Your task to perform on an android device: Search for pizza restaurants on Maps Image 0: 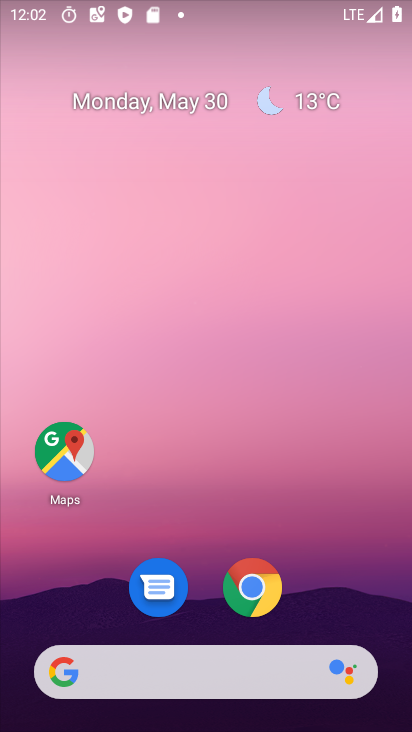
Step 0: click (69, 437)
Your task to perform on an android device: Search for pizza restaurants on Maps Image 1: 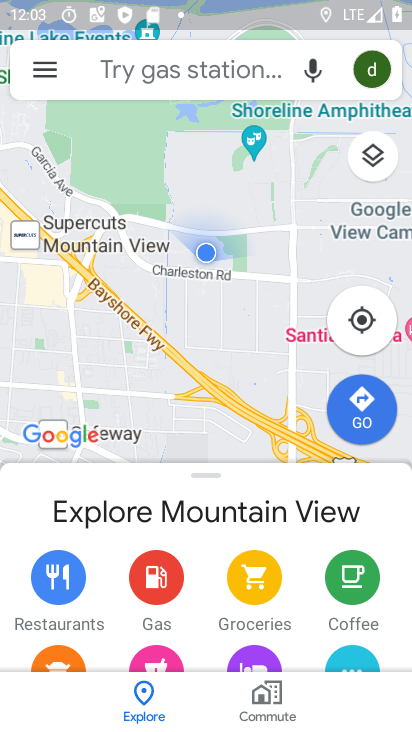
Step 1: click (158, 73)
Your task to perform on an android device: Search for pizza restaurants on Maps Image 2: 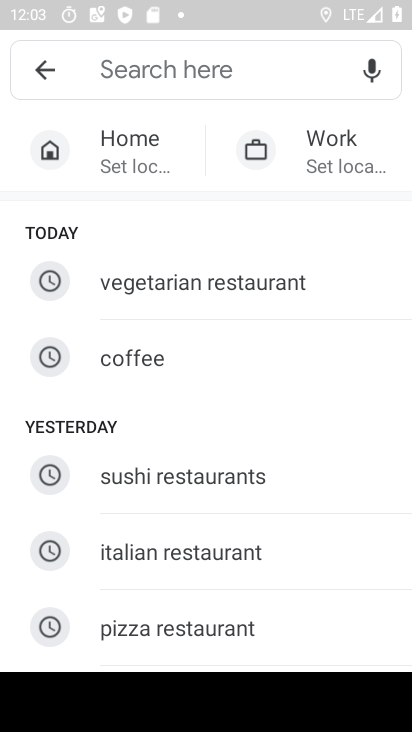
Step 2: type "pizza restaurants"
Your task to perform on an android device: Search for pizza restaurants on Maps Image 3: 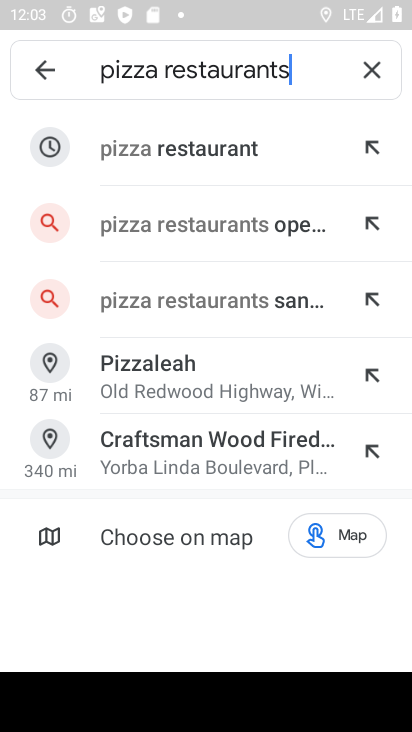
Step 3: press enter
Your task to perform on an android device: Search for pizza restaurants on Maps Image 4: 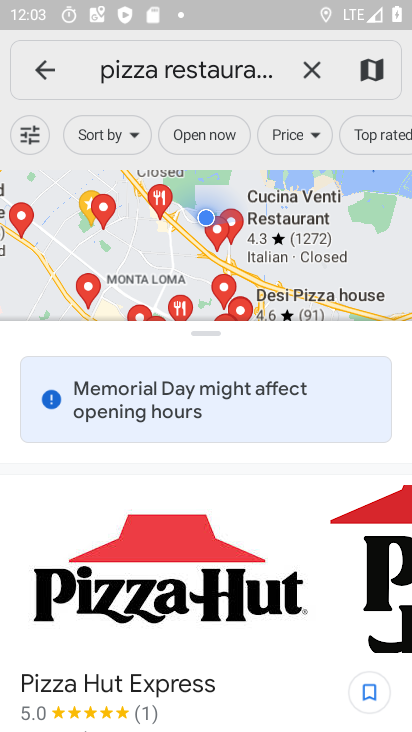
Step 4: task complete